Your task to perform on an android device: Search for Italian restaurants on Maps Image 0: 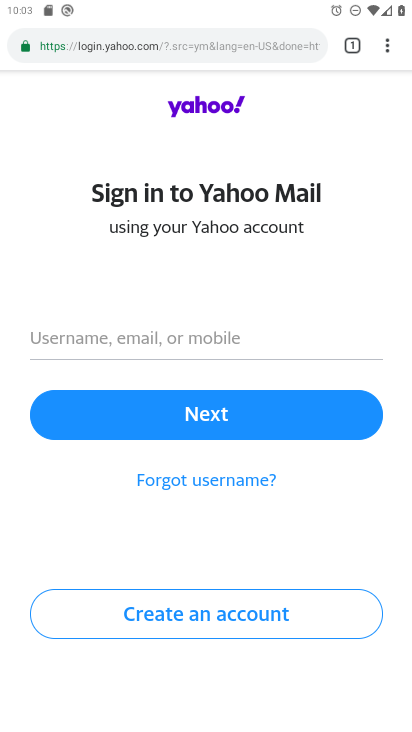
Step 0: press home button
Your task to perform on an android device: Search for Italian restaurants on Maps Image 1: 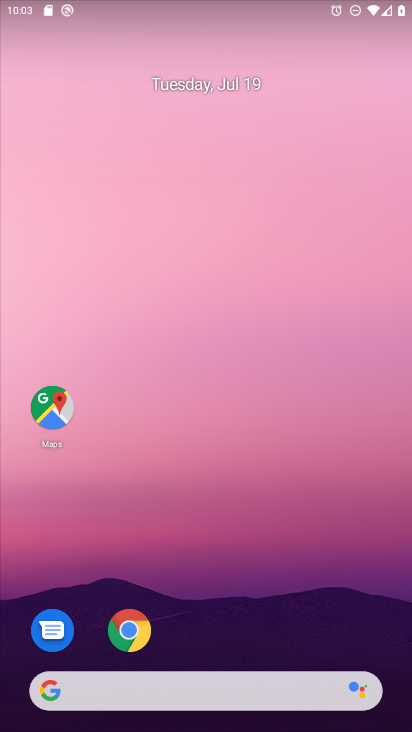
Step 1: drag from (203, 613) to (173, 63)
Your task to perform on an android device: Search for Italian restaurants on Maps Image 2: 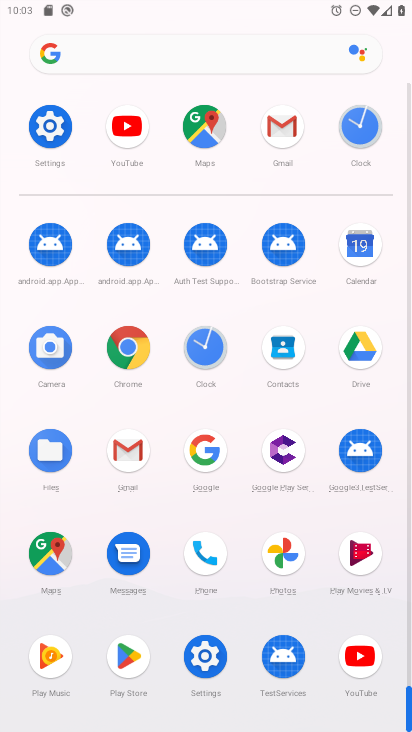
Step 2: click (47, 574)
Your task to perform on an android device: Search for Italian restaurants on Maps Image 3: 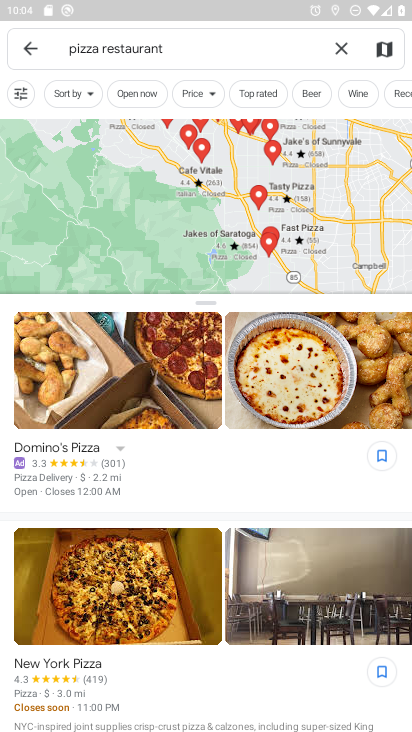
Step 3: click (337, 47)
Your task to perform on an android device: Search for Italian restaurants on Maps Image 4: 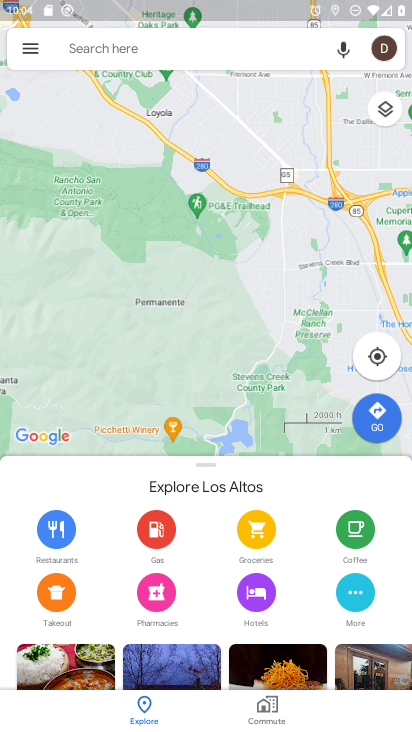
Step 4: click (247, 58)
Your task to perform on an android device: Search for Italian restaurants on Maps Image 5: 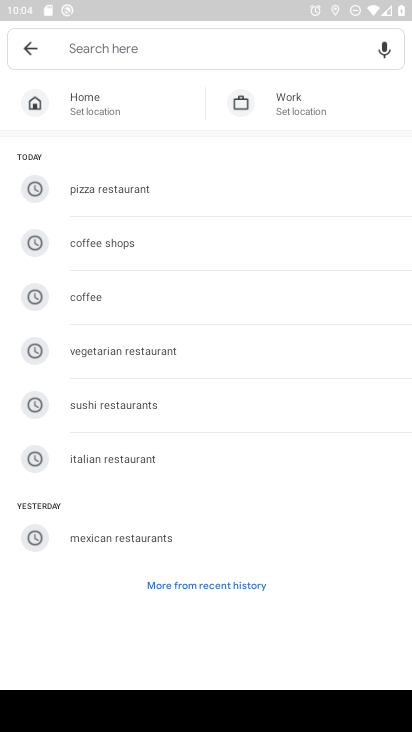
Step 5: click (138, 463)
Your task to perform on an android device: Search for Italian restaurants on Maps Image 6: 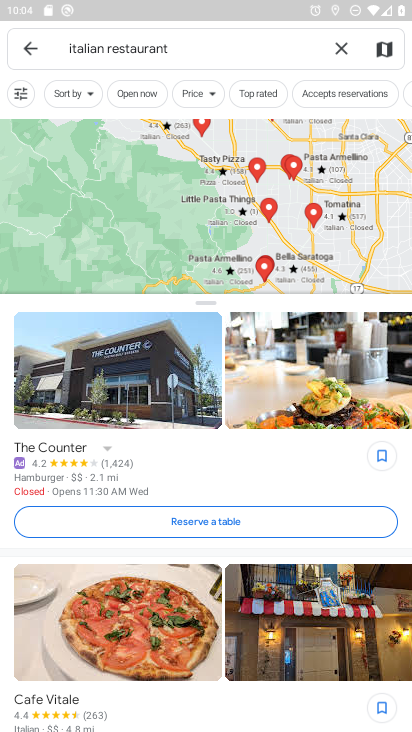
Step 6: task complete